Your task to perform on an android device: move an email to a new category in the gmail app Image 0: 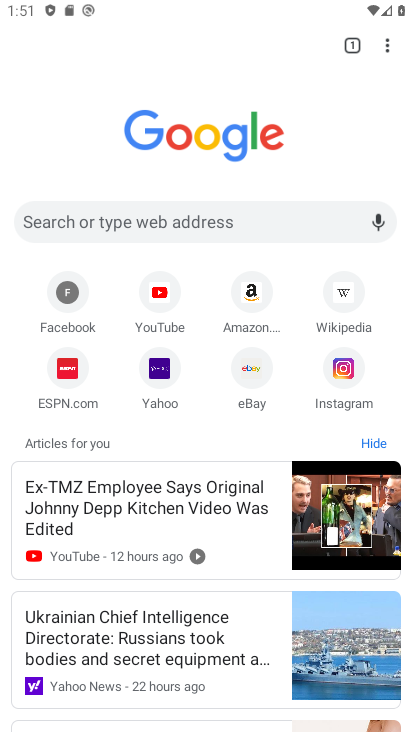
Step 0: press home button
Your task to perform on an android device: move an email to a new category in the gmail app Image 1: 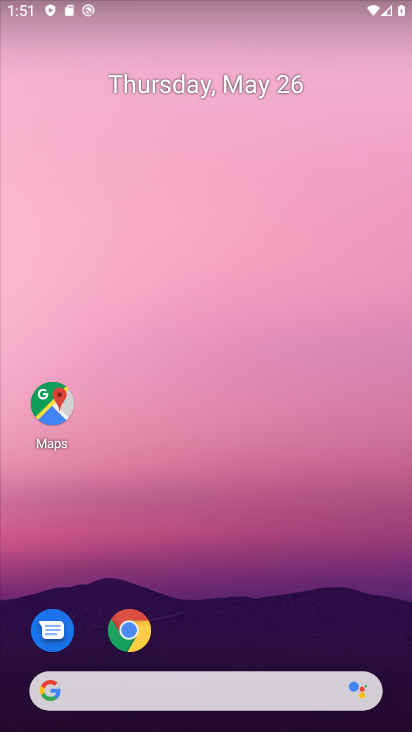
Step 1: drag from (316, 435) to (316, 84)
Your task to perform on an android device: move an email to a new category in the gmail app Image 2: 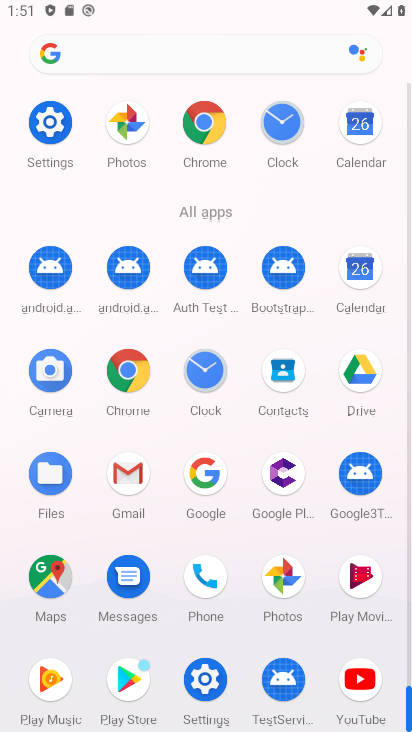
Step 2: click (134, 470)
Your task to perform on an android device: move an email to a new category in the gmail app Image 3: 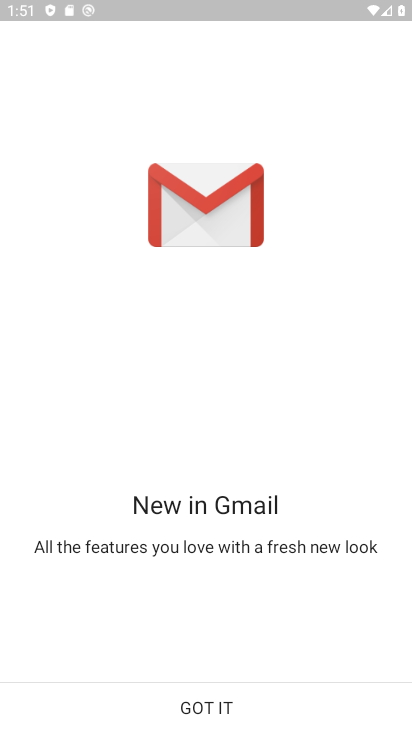
Step 3: click (197, 691)
Your task to perform on an android device: move an email to a new category in the gmail app Image 4: 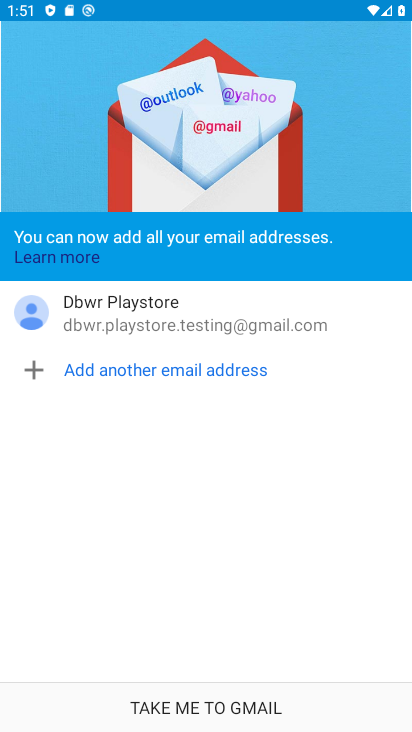
Step 4: click (216, 702)
Your task to perform on an android device: move an email to a new category in the gmail app Image 5: 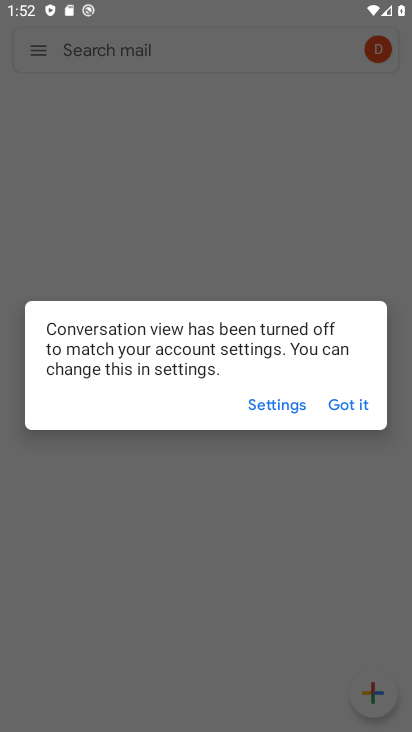
Step 5: click (352, 403)
Your task to perform on an android device: move an email to a new category in the gmail app Image 6: 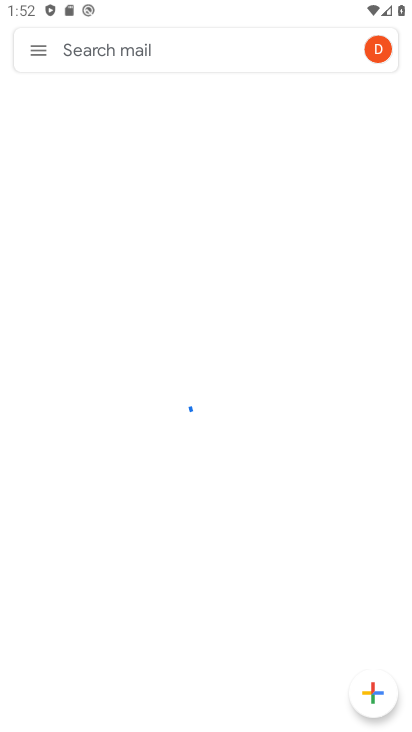
Step 6: click (26, 47)
Your task to perform on an android device: move an email to a new category in the gmail app Image 7: 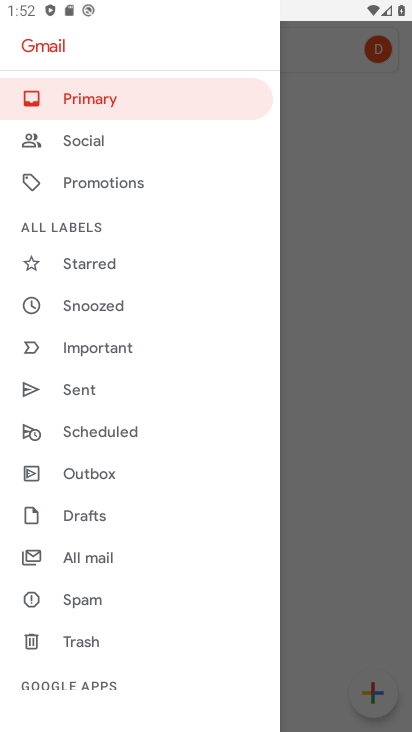
Step 7: drag from (118, 628) to (187, 133)
Your task to perform on an android device: move an email to a new category in the gmail app Image 8: 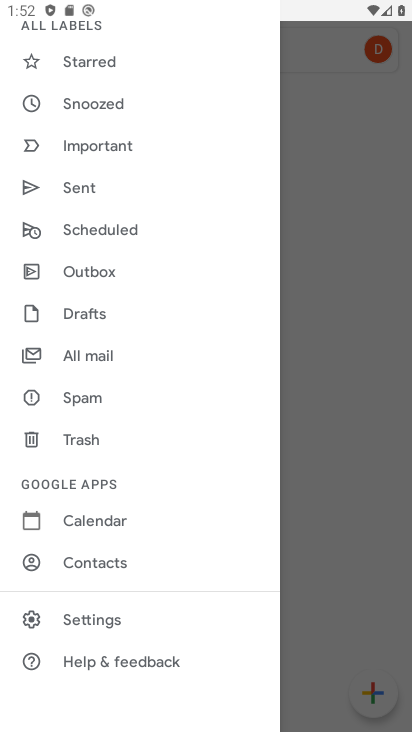
Step 8: click (95, 625)
Your task to perform on an android device: move an email to a new category in the gmail app Image 9: 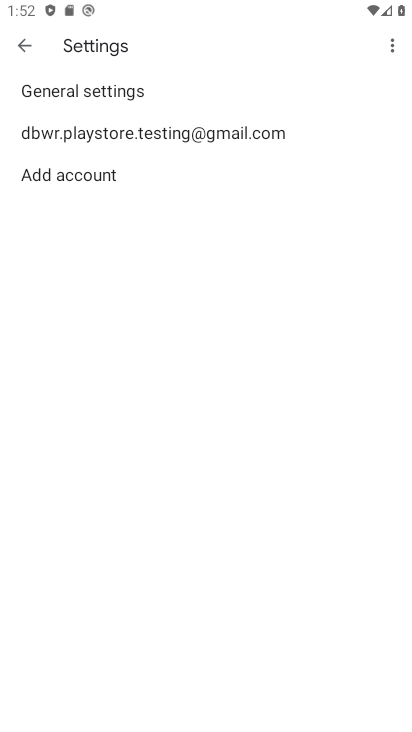
Step 9: click (184, 89)
Your task to perform on an android device: move an email to a new category in the gmail app Image 10: 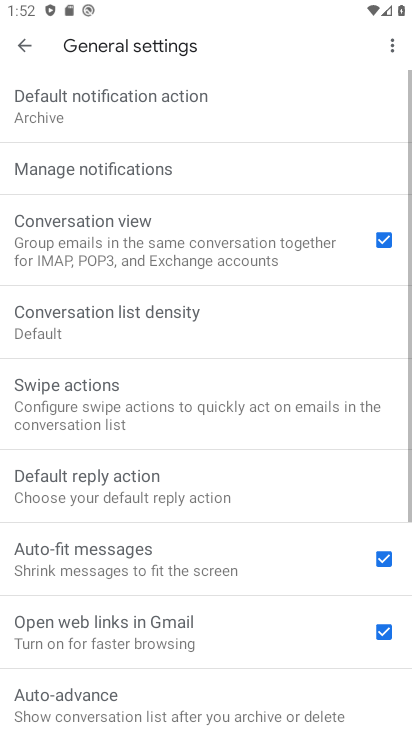
Step 10: task complete